Your task to perform on an android device: install app "Facebook Lite" Image 0: 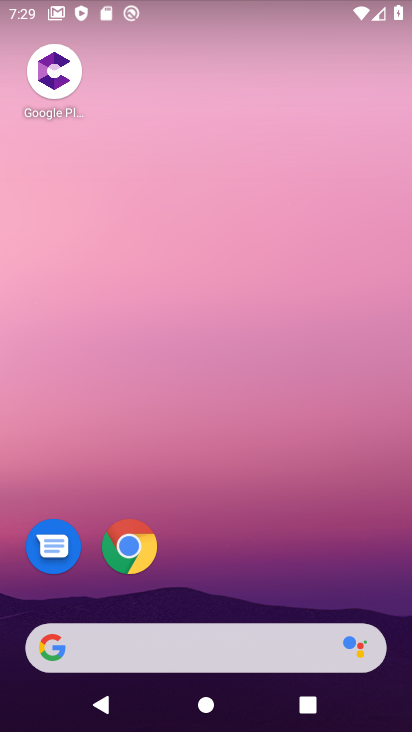
Step 0: drag from (225, 570) to (268, 11)
Your task to perform on an android device: install app "Facebook Lite" Image 1: 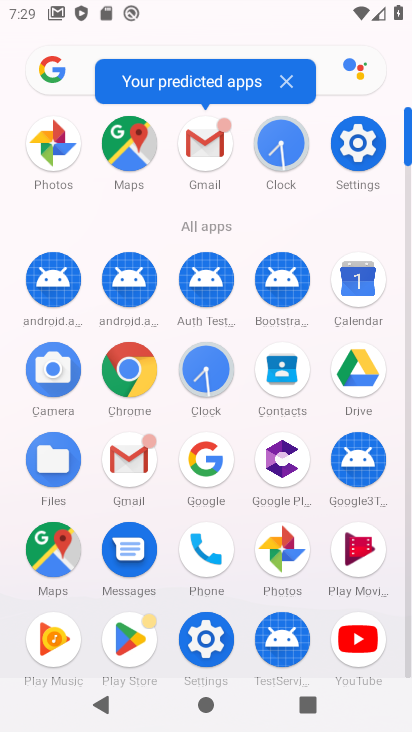
Step 1: click (128, 631)
Your task to perform on an android device: install app "Facebook Lite" Image 2: 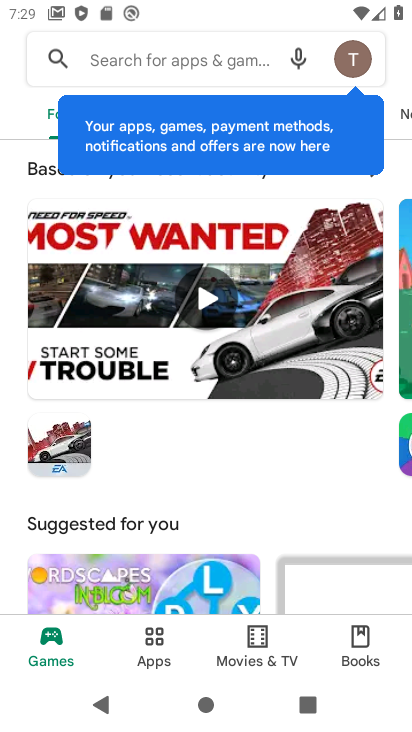
Step 2: click (265, 55)
Your task to perform on an android device: install app "Facebook Lite" Image 3: 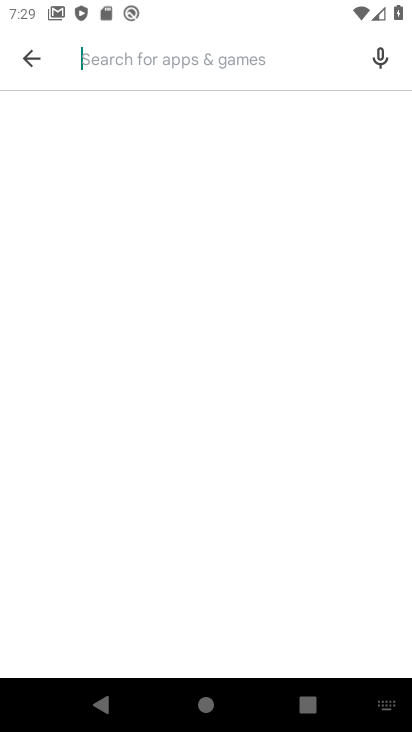
Step 3: type "facebook lite"
Your task to perform on an android device: install app "Facebook Lite" Image 4: 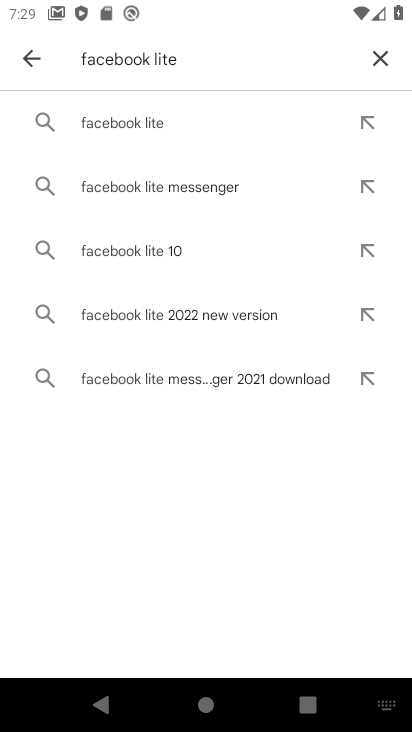
Step 4: click (151, 124)
Your task to perform on an android device: install app "Facebook Lite" Image 5: 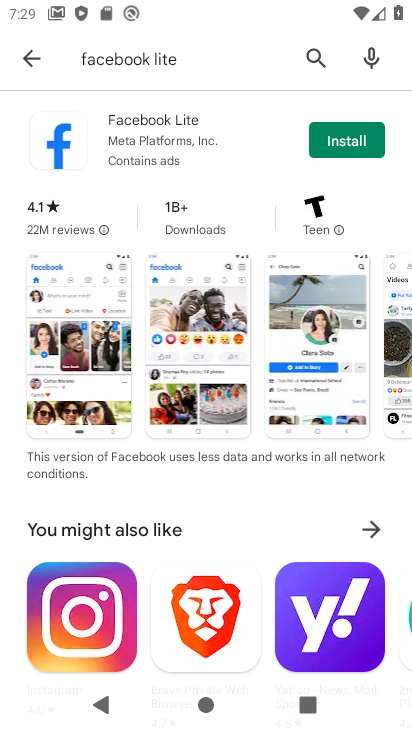
Step 5: click (358, 135)
Your task to perform on an android device: install app "Facebook Lite" Image 6: 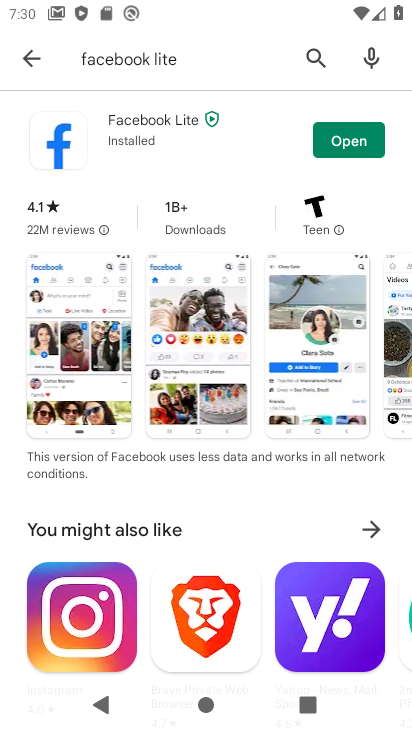
Step 6: task complete